Your task to perform on an android device: Do I have any events this weekend? Image 0: 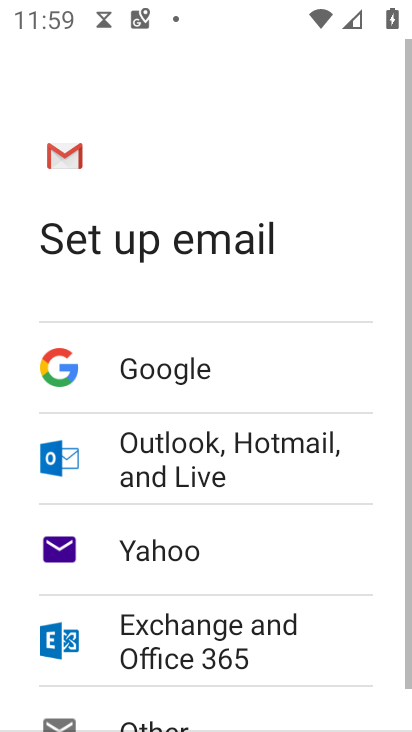
Step 0: press home button
Your task to perform on an android device: Do I have any events this weekend? Image 1: 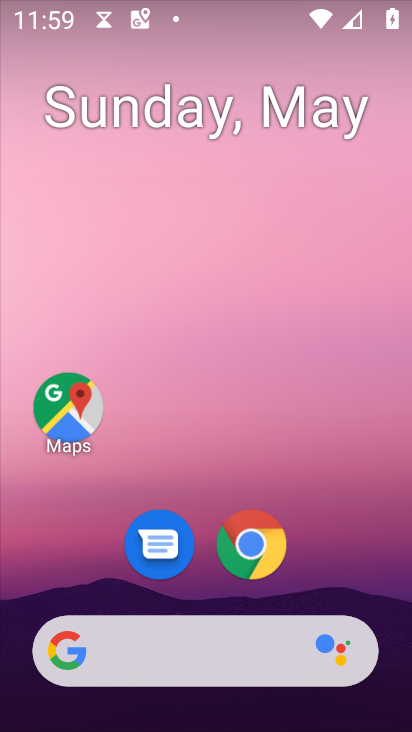
Step 1: drag from (316, 445) to (319, 274)
Your task to perform on an android device: Do I have any events this weekend? Image 2: 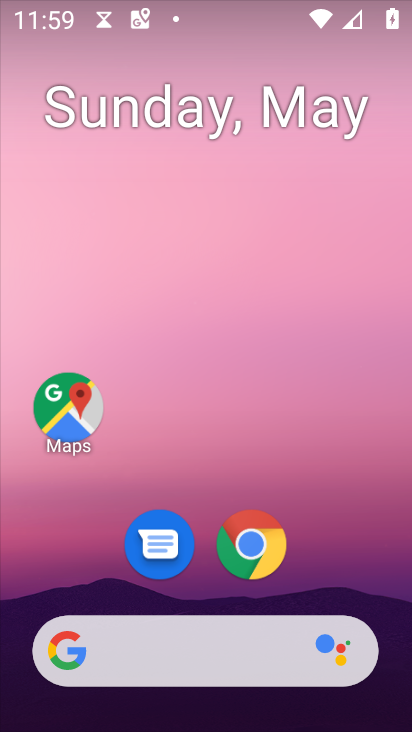
Step 2: drag from (339, 574) to (341, 348)
Your task to perform on an android device: Do I have any events this weekend? Image 3: 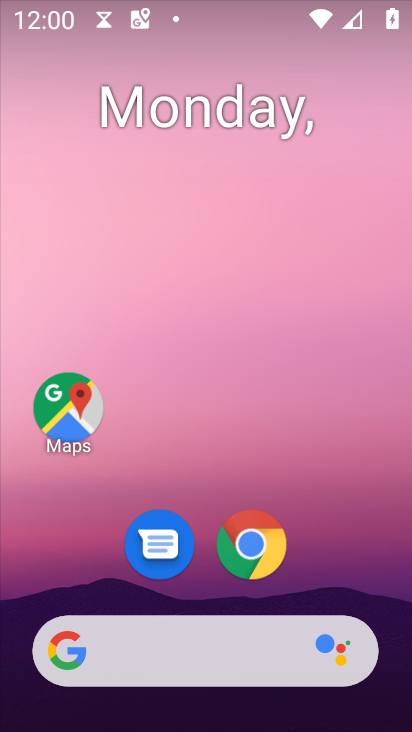
Step 3: drag from (328, 541) to (341, 328)
Your task to perform on an android device: Do I have any events this weekend? Image 4: 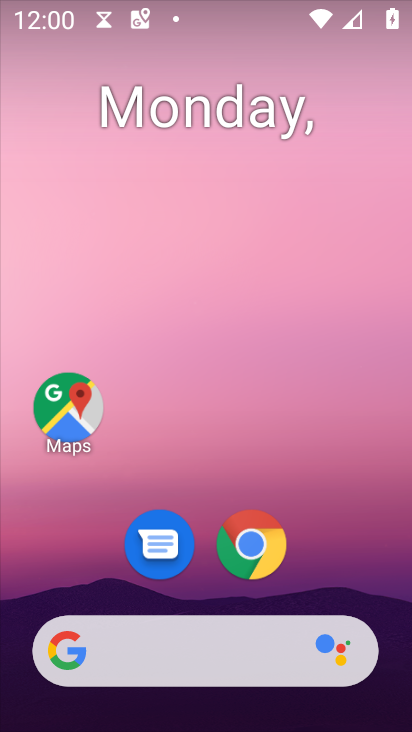
Step 4: drag from (274, 486) to (269, 86)
Your task to perform on an android device: Do I have any events this weekend? Image 5: 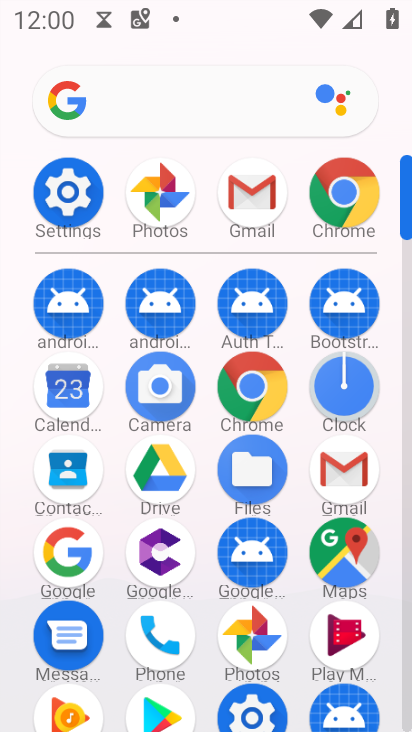
Step 5: click (58, 385)
Your task to perform on an android device: Do I have any events this weekend? Image 6: 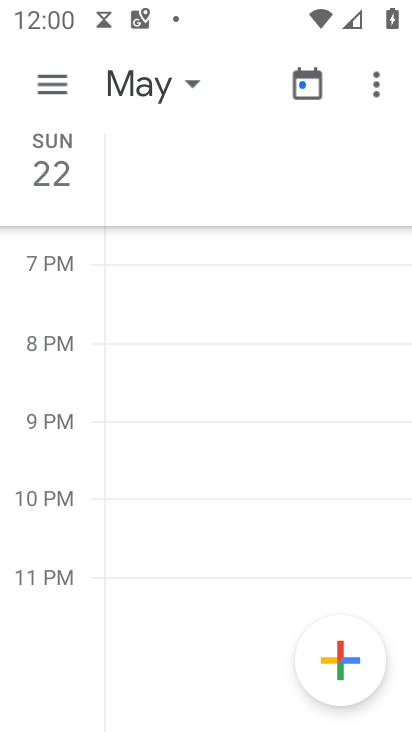
Step 6: click (51, 71)
Your task to perform on an android device: Do I have any events this weekend? Image 7: 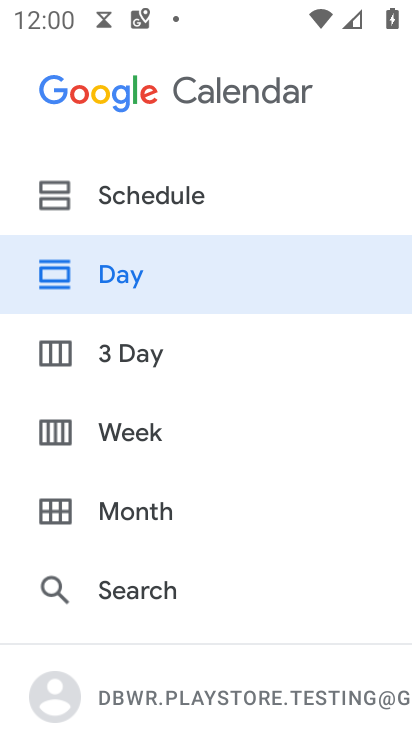
Step 7: click (148, 436)
Your task to perform on an android device: Do I have any events this weekend? Image 8: 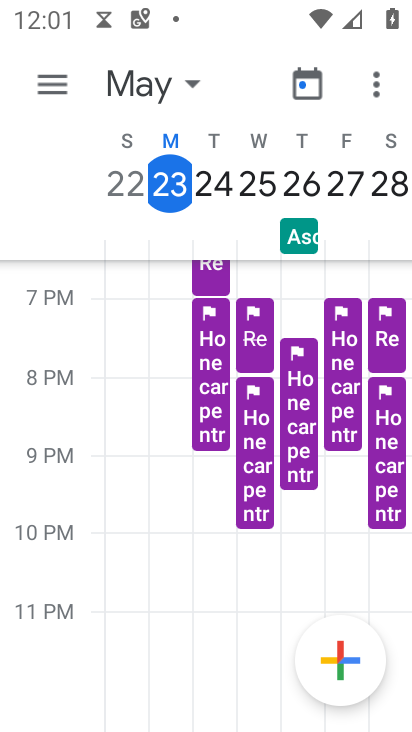
Step 8: task complete